Your task to perform on an android device: Open the phone app and click the voicemail tab. Image 0: 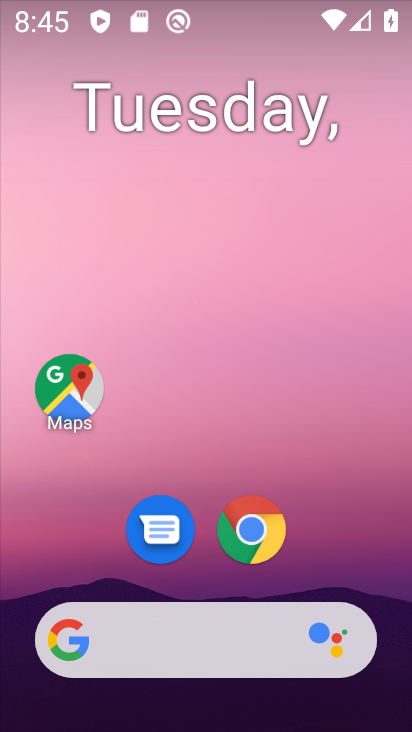
Step 0: drag from (382, 596) to (288, 151)
Your task to perform on an android device: Open the phone app and click the voicemail tab. Image 1: 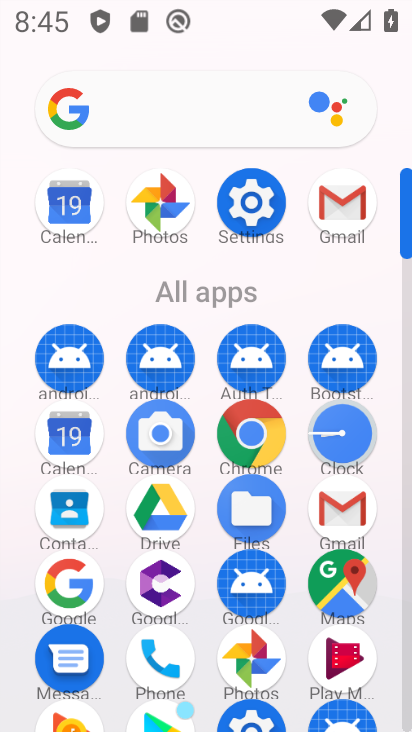
Step 1: click (406, 701)
Your task to perform on an android device: Open the phone app and click the voicemail tab. Image 2: 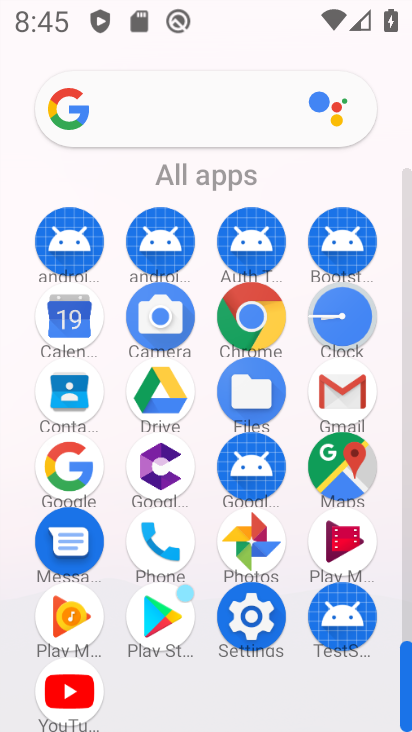
Step 2: click (152, 539)
Your task to perform on an android device: Open the phone app and click the voicemail tab. Image 3: 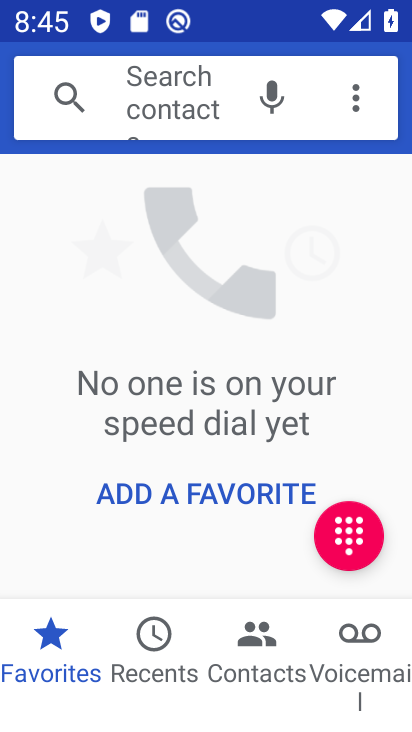
Step 3: click (350, 640)
Your task to perform on an android device: Open the phone app and click the voicemail tab. Image 4: 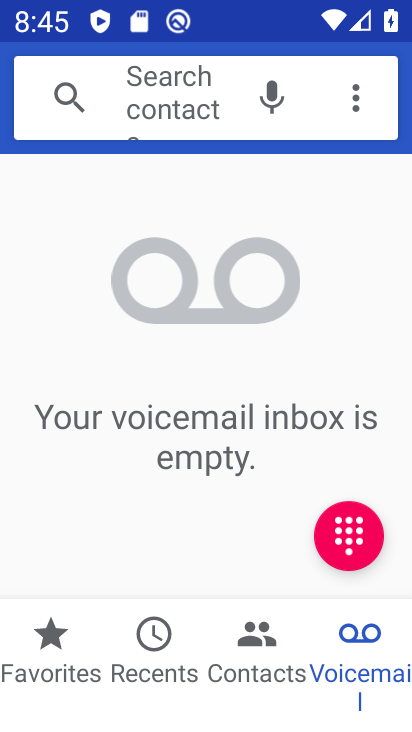
Step 4: task complete